Your task to perform on an android device: clear all cookies in the chrome app Image 0: 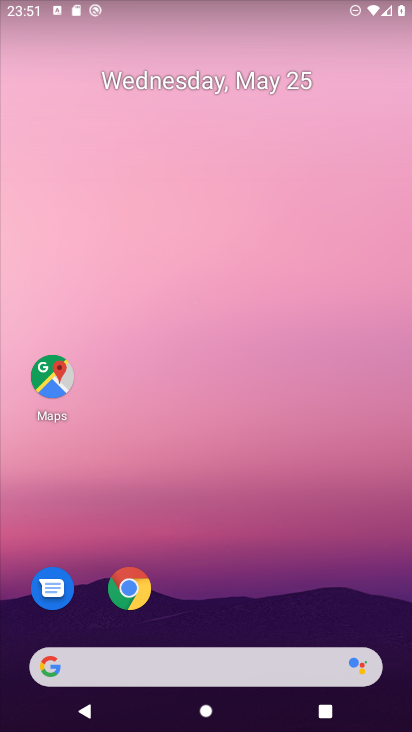
Step 0: press home button
Your task to perform on an android device: clear all cookies in the chrome app Image 1: 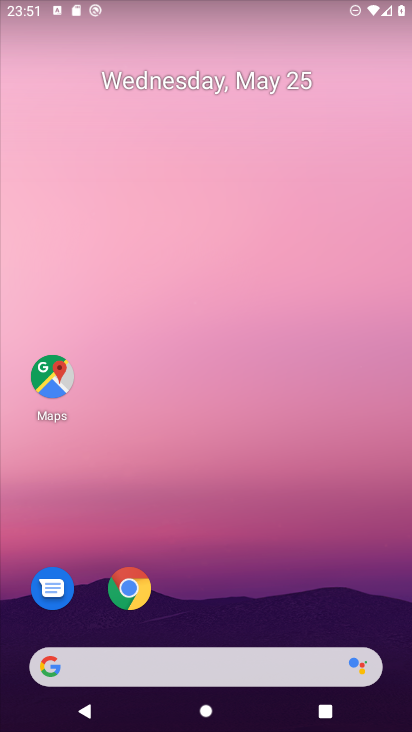
Step 1: click (122, 588)
Your task to perform on an android device: clear all cookies in the chrome app Image 2: 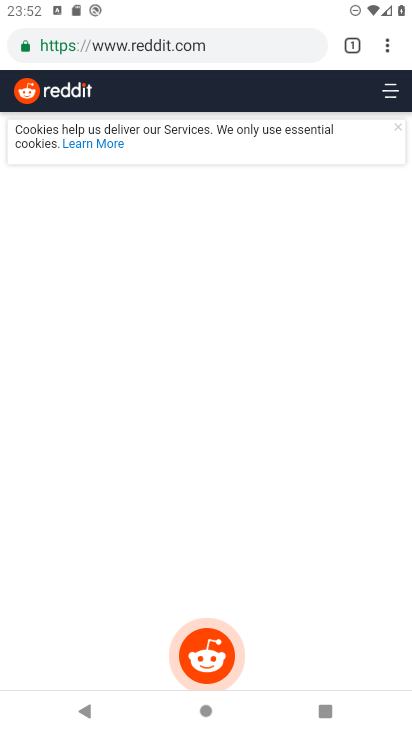
Step 2: click (392, 47)
Your task to perform on an android device: clear all cookies in the chrome app Image 3: 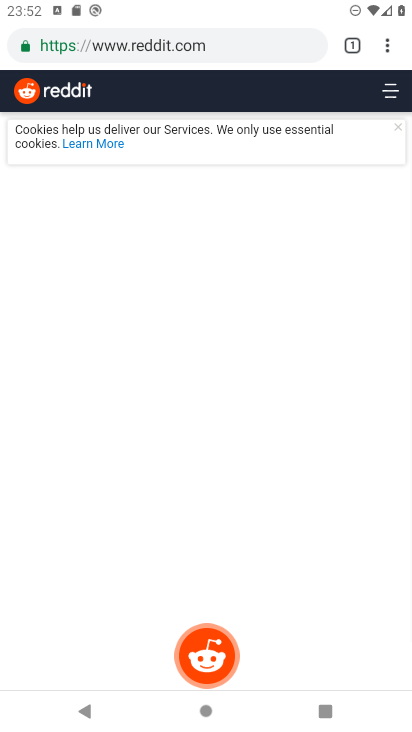
Step 3: click (386, 47)
Your task to perform on an android device: clear all cookies in the chrome app Image 4: 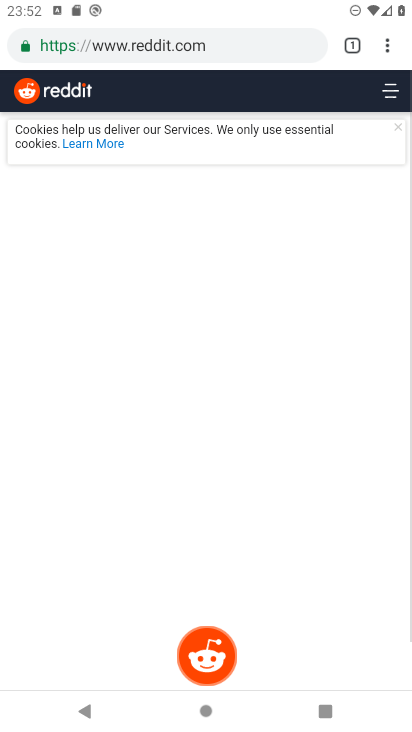
Step 4: click (385, 46)
Your task to perform on an android device: clear all cookies in the chrome app Image 5: 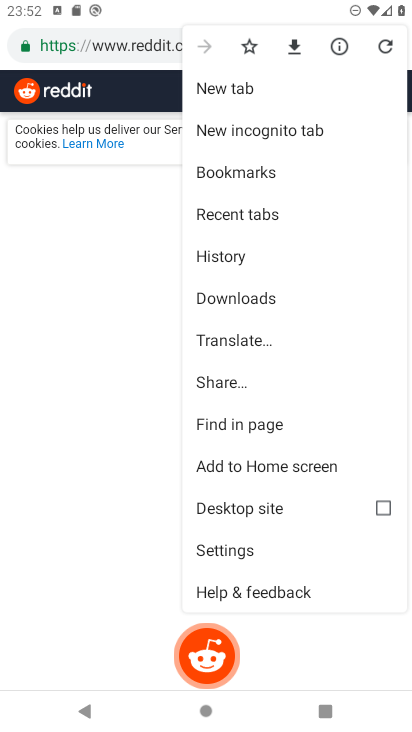
Step 5: click (221, 545)
Your task to perform on an android device: clear all cookies in the chrome app Image 6: 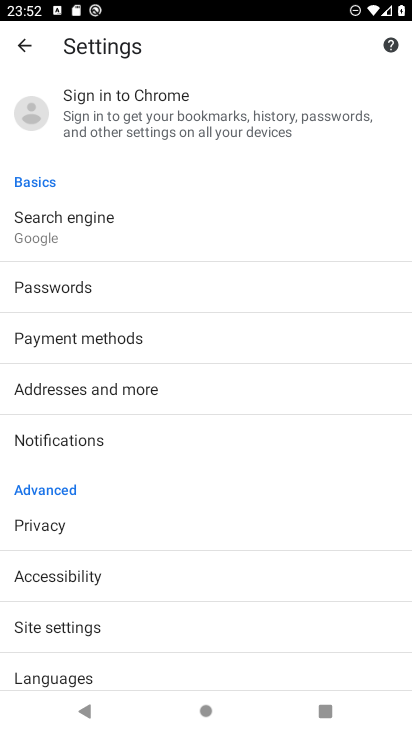
Step 6: drag from (51, 667) to (186, 333)
Your task to perform on an android device: clear all cookies in the chrome app Image 7: 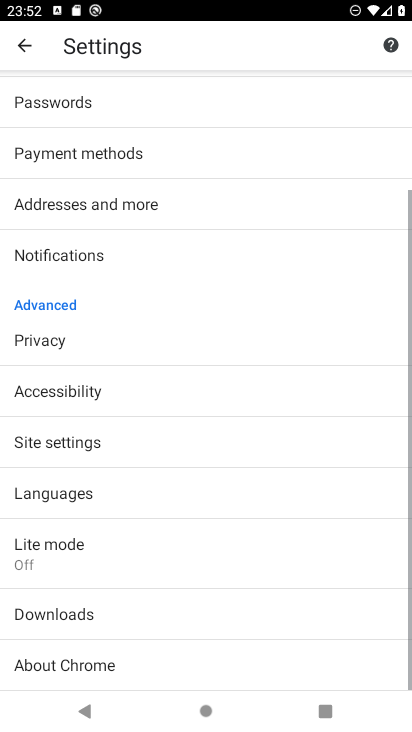
Step 7: click (46, 444)
Your task to perform on an android device: clear all cookies in the chrome app Image 8: 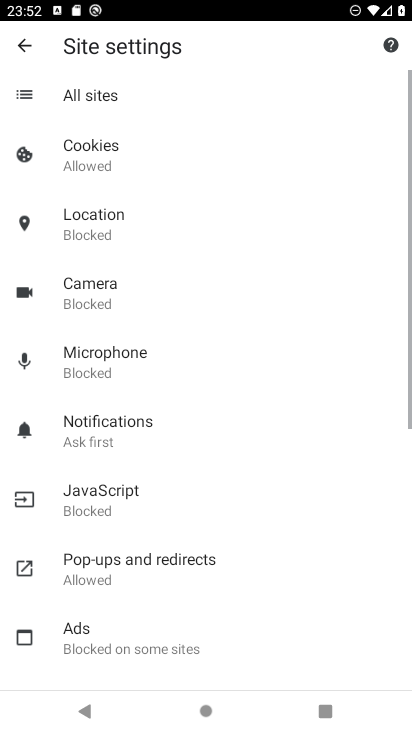
Step 8: click (143, 152)
Your task to perform on an android device: clear all cookies in the chrome app Image 9: 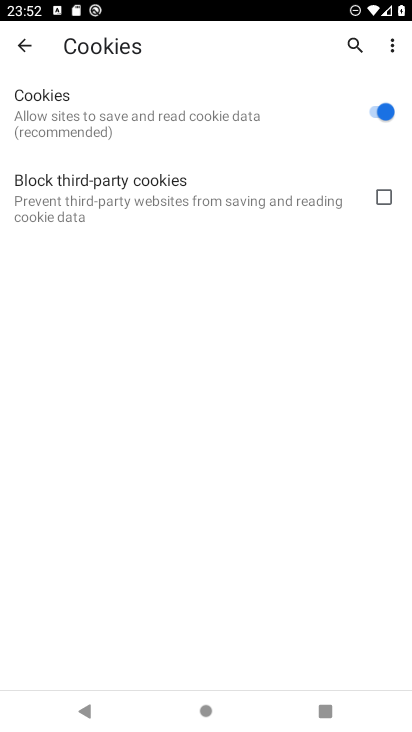
Step 9: click (151, 118)
Your task to perform on an android device: clear all cookies in the chrome app Image 10: 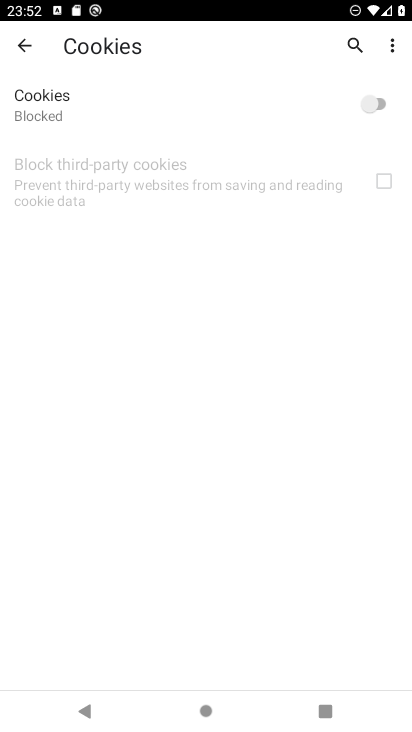
Step 10: click (151, 118)
Your task to perform on an android device: clear all cookies in the chrome app Image 11: 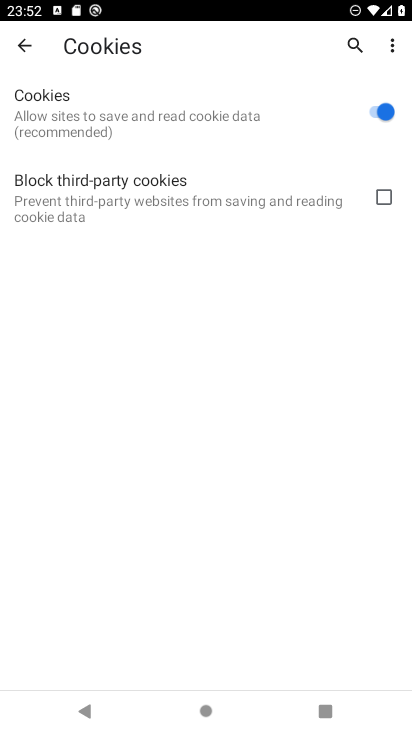
Step 11: task complete